Your task to perform on an android device: turn smart compose on in the gmail app Image 0: 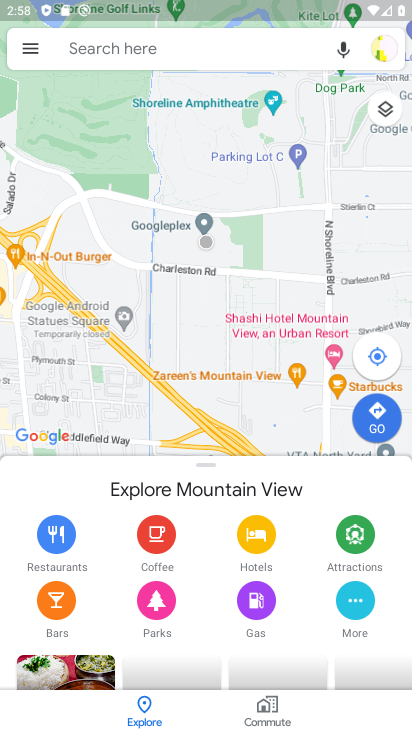
Step 0: press home button
Your task to perform on an android device: turn smart compose on in the gmail app Image 1: 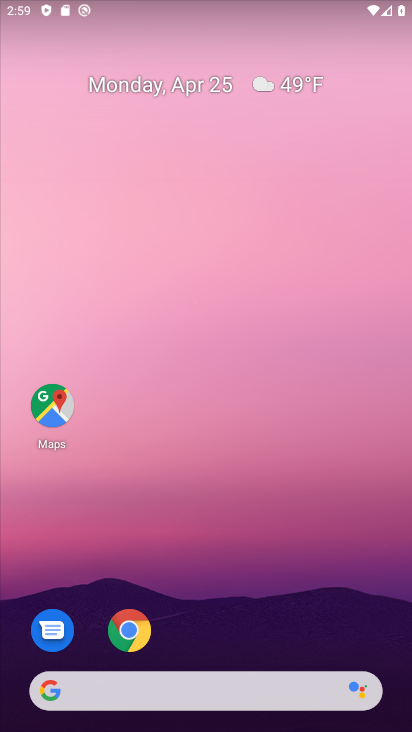
Step 1: drag from (208, 629) to (230, 2)
Your task to perform on an android device: turn smart compose on in the gmail app Image 2: 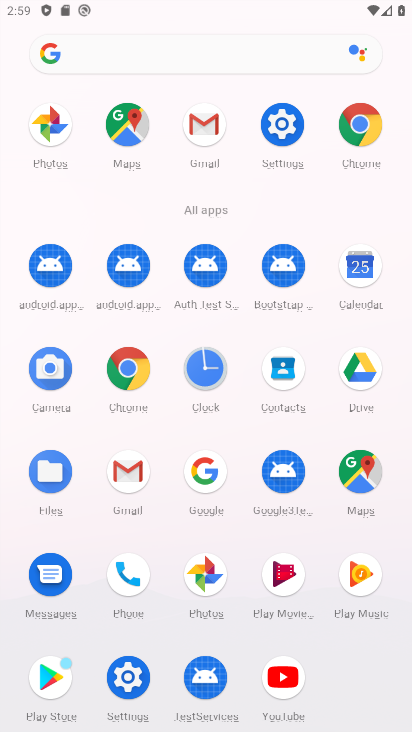
Step 2: click (204, 141)
Your task to perform on an android device: turn smart compose on in the gmail app Image 3: 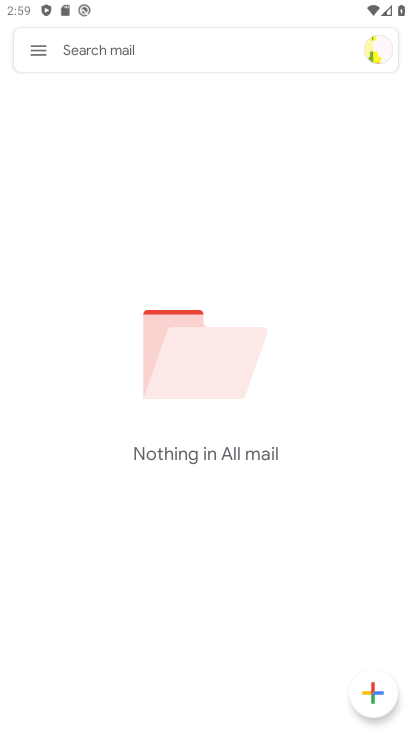
Step 3: click (37, 43)
Your task to perform on an android device: turn smart compose on in the gmail app Image 4: 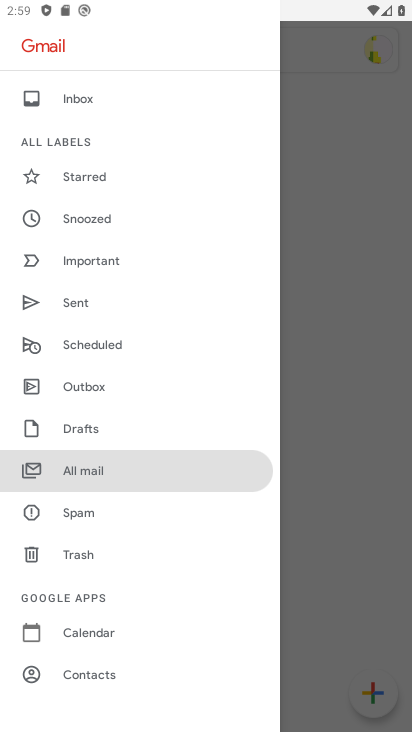
Step 4: drag from (170, 552) to (189, 171)
Your task to perform on an android device: turn smart compose on in the gmail app Image 5: 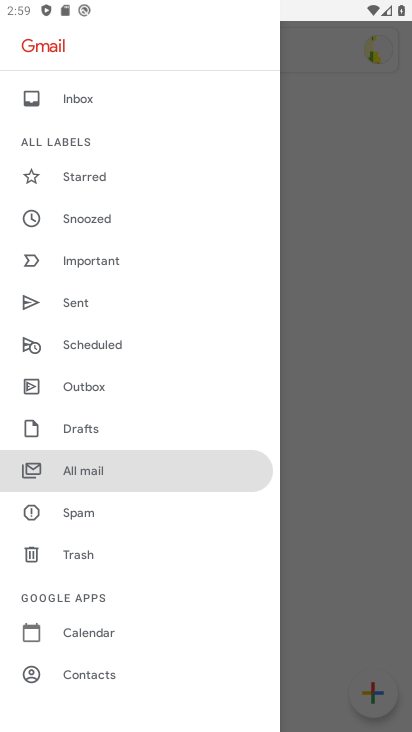
Step 5: drag from (106, 542) to (194, 322)
Your task to perform on an android device: turn smart compose on in the gmail app Image 6: 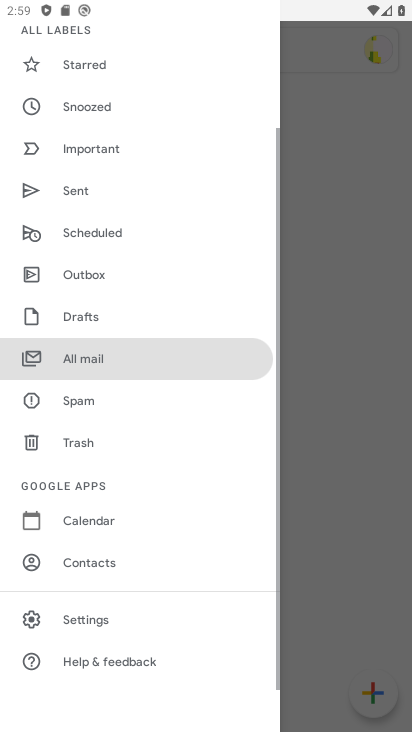
Step 6: click (94, 611)
Your task to perform on an android device: turn smart compose on in the gmail app Image 7: 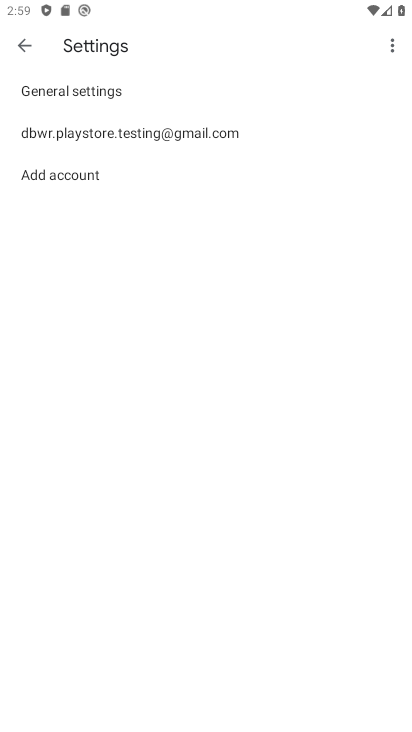
Step 7: click (187, 119)
Your task to perform on an android device: turn smart compose on in the gmail app Image 8: 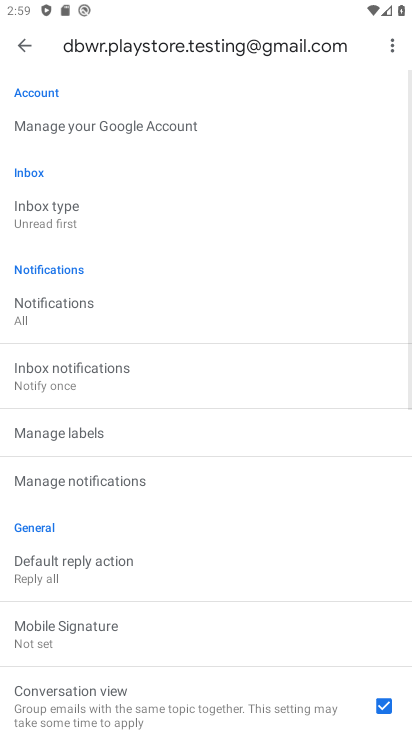
Step 8: task complete